Your task to perform on an android device: toggle notification dots Image 0: 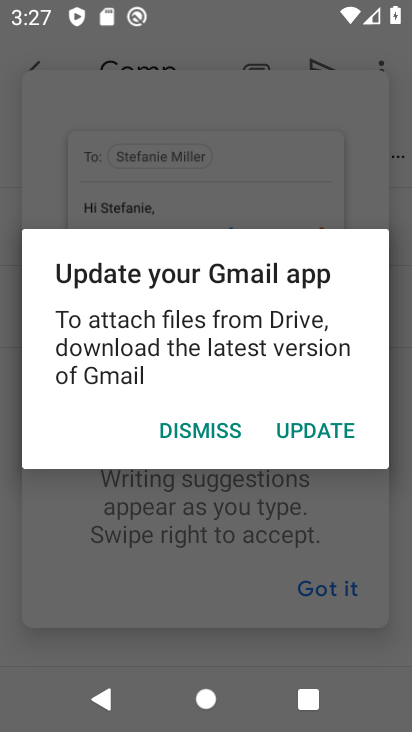
Step 0: press home button
Your task to perform on an android device: toggle notification dots Image 1: 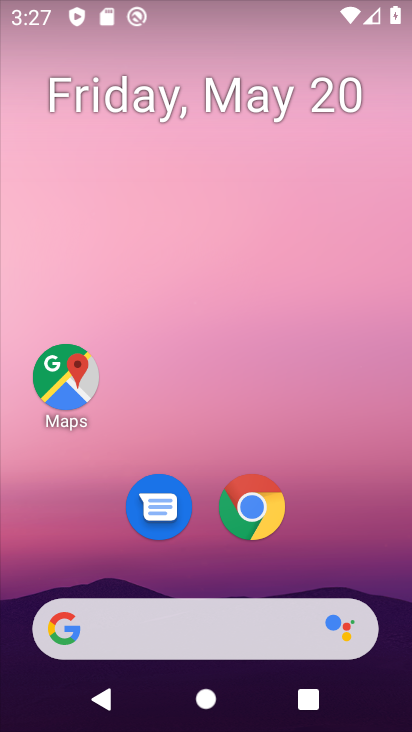
Step 1: drag from (312, 543) to (228, 141)
Your task to perform on an android device: toggle notification dots Image 2: 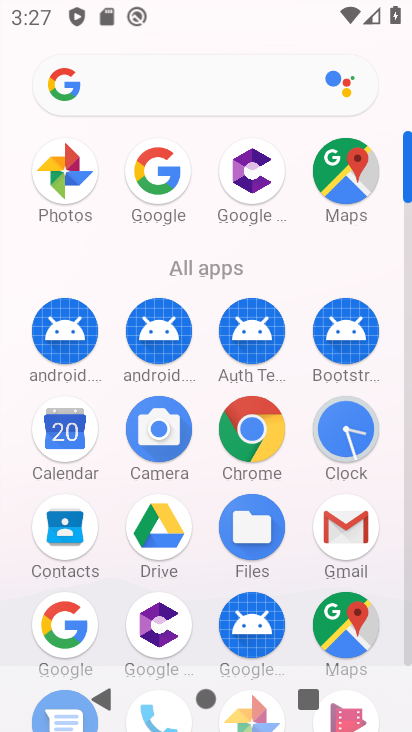
Step 2: drag from (302, 528) to (296, 314)
Your task to perform on an android device: toggle notification dots Image 3: 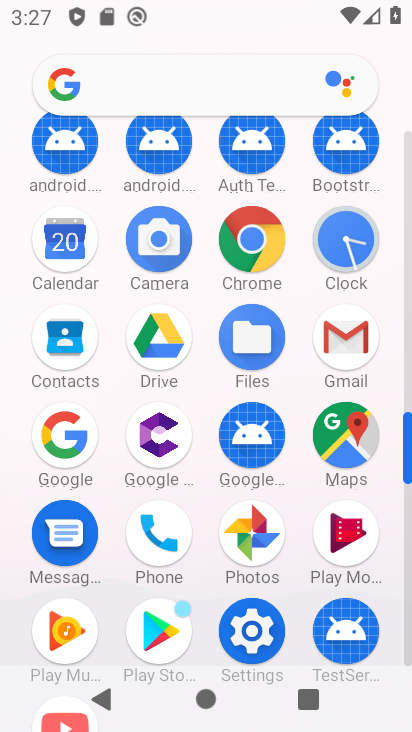
Step 3: click (252, 631)
Your task to perform on an android device: toggle notification dots Image 4: 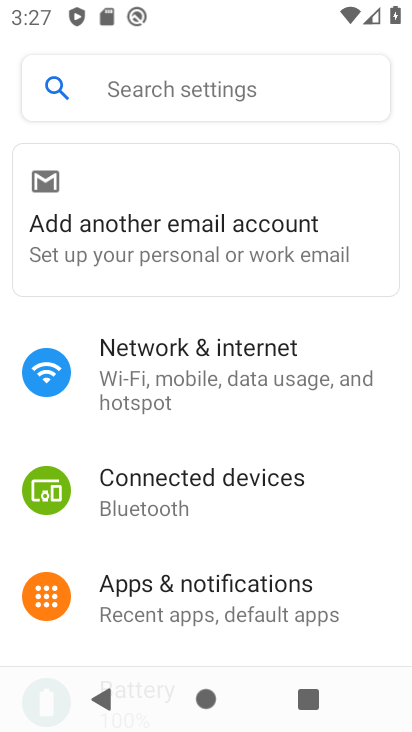
Step 4: drag from (213, 511) to (253, 421)
Your task to perform on an android device: toggle notification dots Image 5: 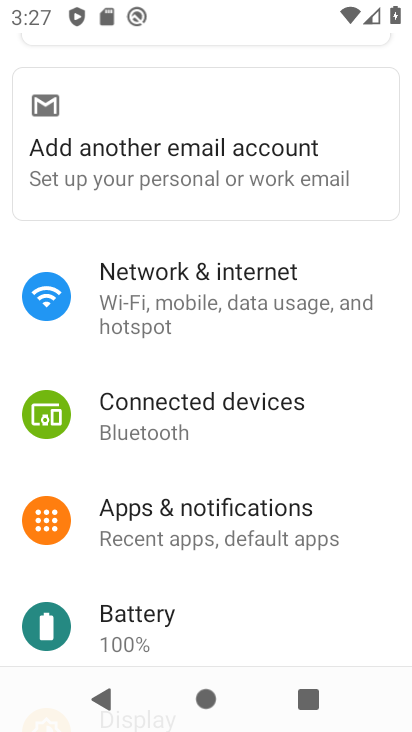
Step 5: drag from (217, 572) to (255, 467)
Your task to perform on an android device: toggle notification dots Image 6: 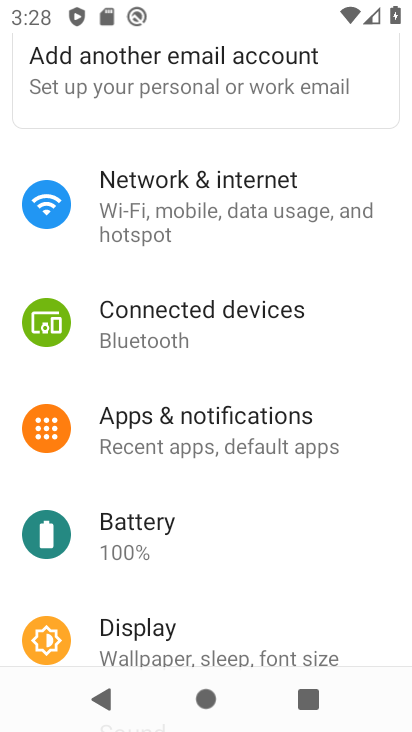
Step 6: click (236, 428)
Your task to perform on an android device: toggle notification dots Image 7: 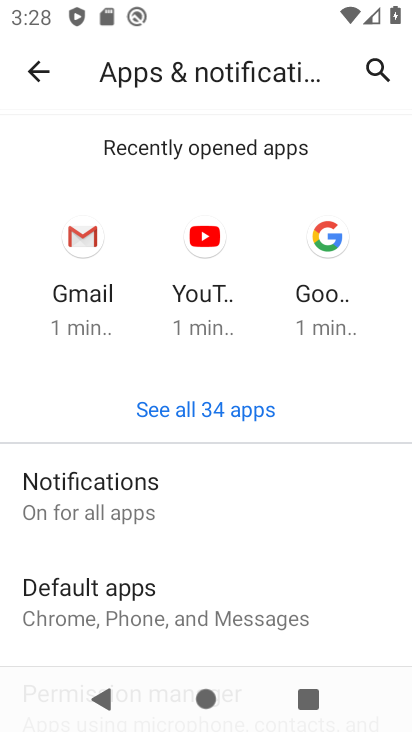
Step 7: click (111, 480)
Your task to perform on an android device: toggle notification dots Image 8: 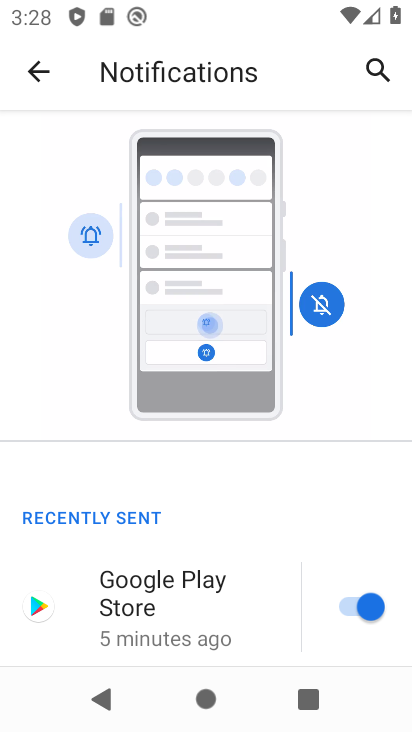
Step 8: drag from (219, 540) to (228, 390)
Your task to perform on an android device: toggle notification dots Image 9: 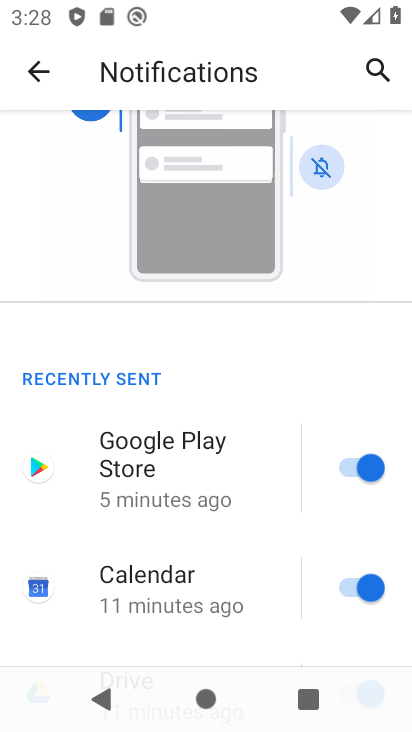
Step 9: drag from (163, 539) to (228, 428)
Your task to perform on an android device: toggle notification dots Image 10: 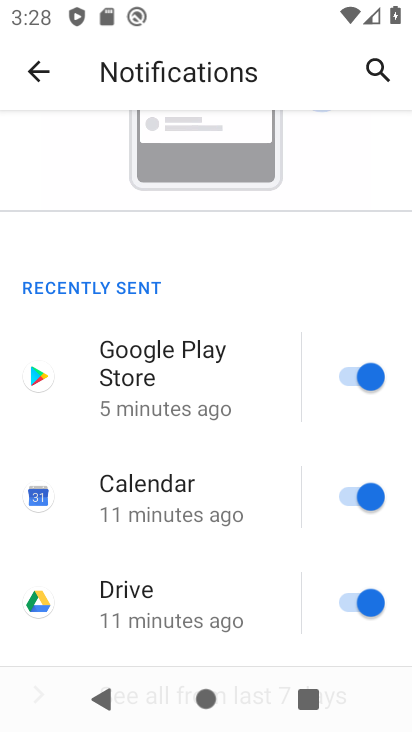
Step 10: drag from (169, 556) to (222, 424)
Your task to perform on an android device: toggle notification dots Image 11: 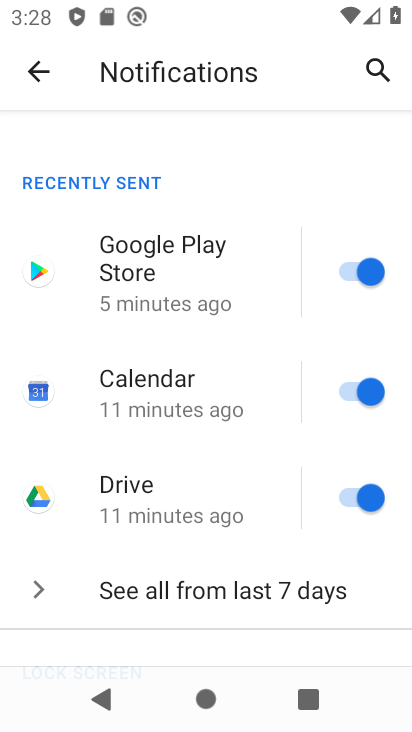
Step 11: drag from (168, 556) to (240, 421)
Your task to perform on an android device: toggle notification dots Image 12: 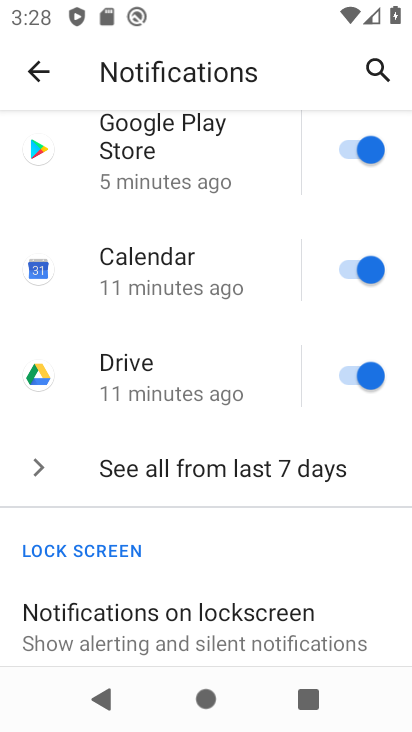
Step 12: drag from (167, 567) to (177, 343)
Your task to perform on an android device: toggle notification dots Image 13: 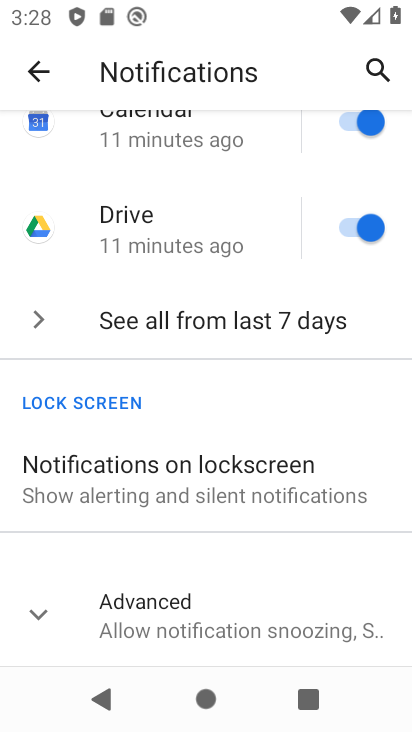
Step 13: click (229, 621)
Your task to perform on an android device: toggle notification dots Image 14: 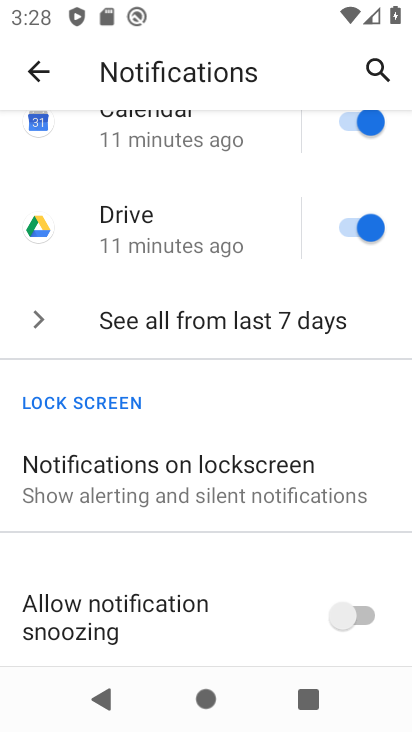
Step 14: drag from (194, 633) to (270, 487)
Your task to perform on an android device: toggle notification dots Image 15: 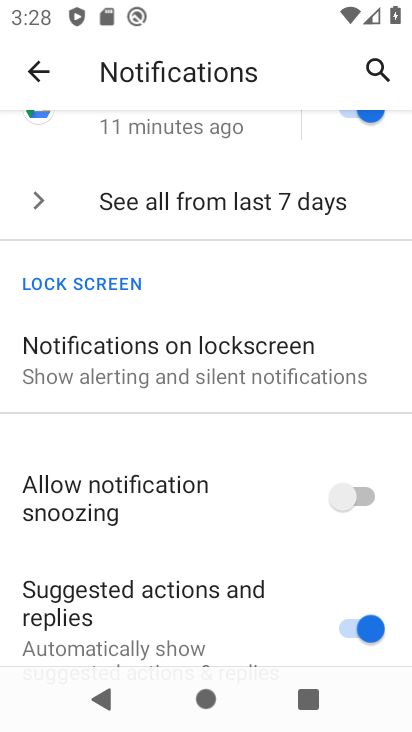
Step 15: drag from (144, 625) to (229, 411)
Your task to perform on an android device: toggle notification dots Image 16: 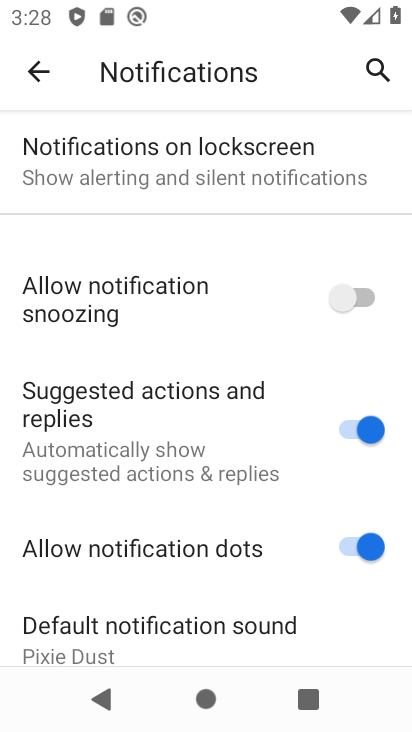
Step 16: click (338, 553)
Your task to perform on an android device: toggle notification dots Image 17: 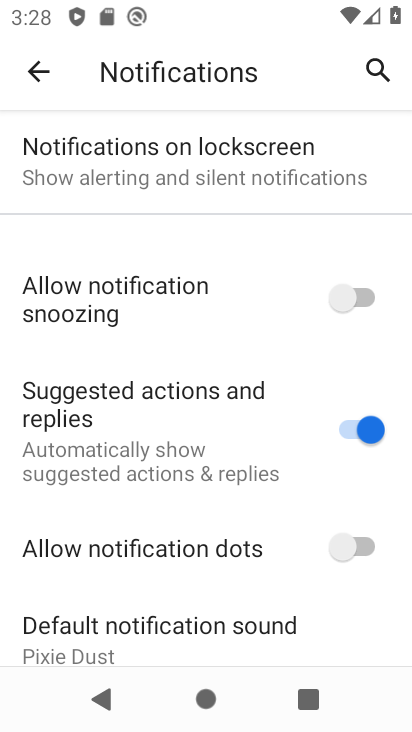
Step 17: task complete